Your task to perform on an android device: Open calendar and show me the second week of next month Image 0: 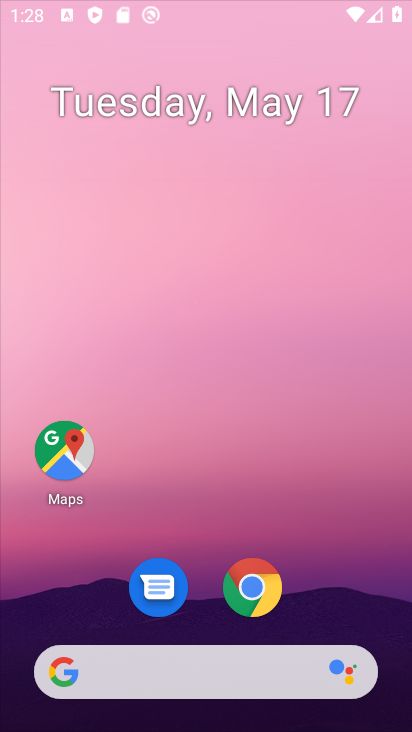
Step 0: click (311, 16)
Your task to perform on an android device: Open calendar and show me the second week of next month Image 1: 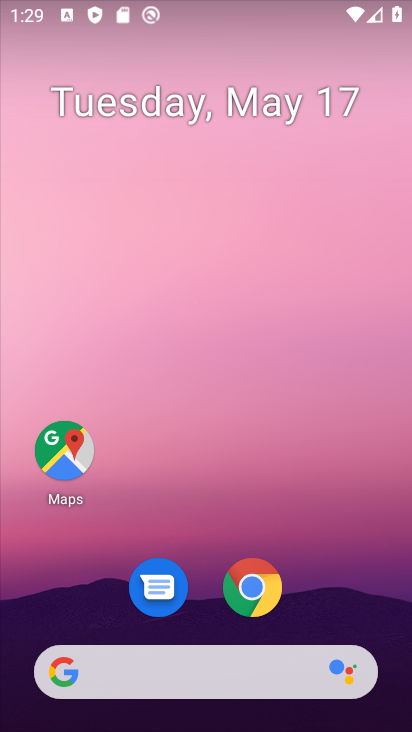
Step 1: drag from (211, 599) to (285, 45)
Your task to perform on an android device: Open calendar and show me the second week of next month Image 2: 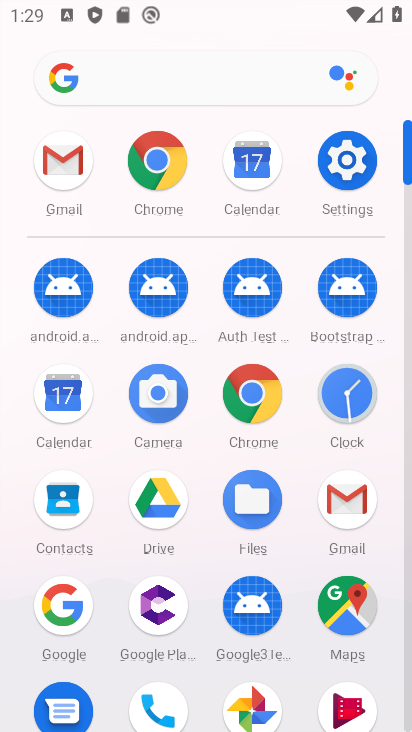
Step 2: click (69, 405)
Your task to perform on an android device: Open calendar and show me the second week of next month Image 3: 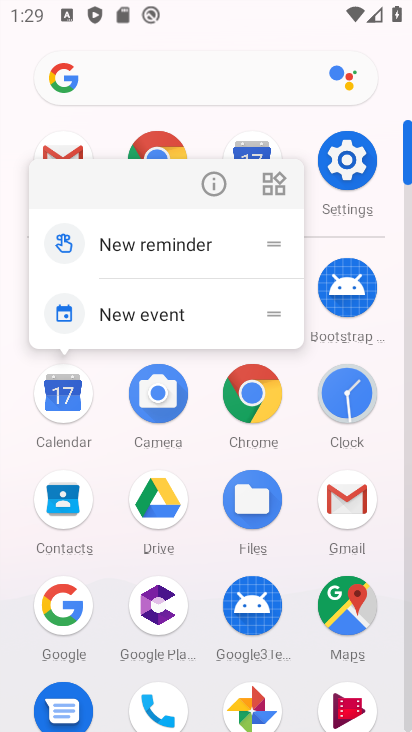
Step 3: click (209, 189)
Your task to perform on an android device: Open calendar and show me the second week of next month Image 4: 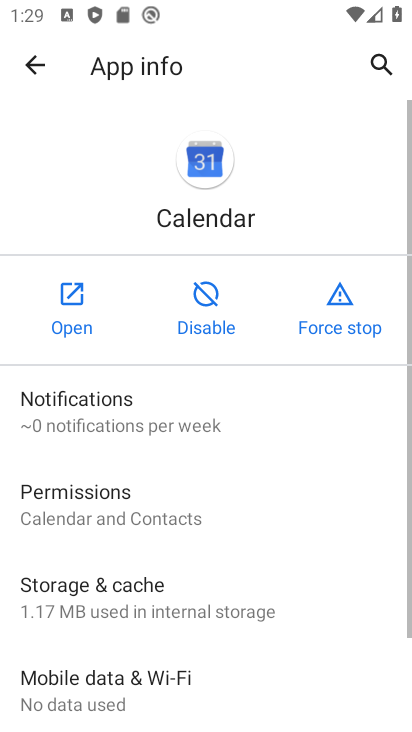
Step 4: click (67, 295)
Your task to perform on an android device: Open calendar and show me the second week of next month Image 5: 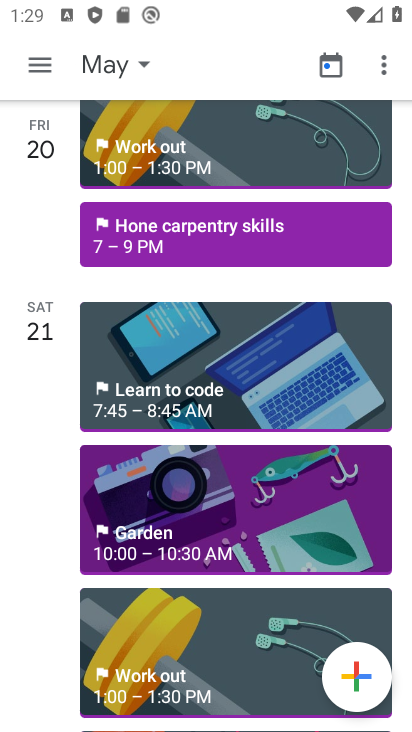
Step 5: drag from (270, 170) to (390, 730)
Your task to perform on an android device: Open calendar and show me the second week of next month Image 6: 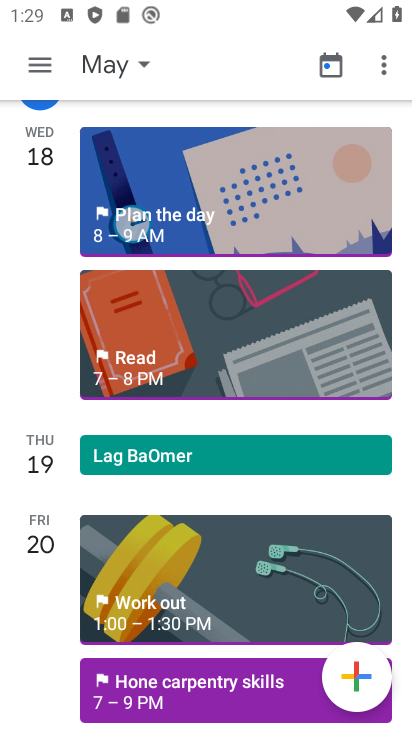
Step 6: click (114, 69)
Your task to perform on an android device: Open calendar and show me the second week of next month Image 7: 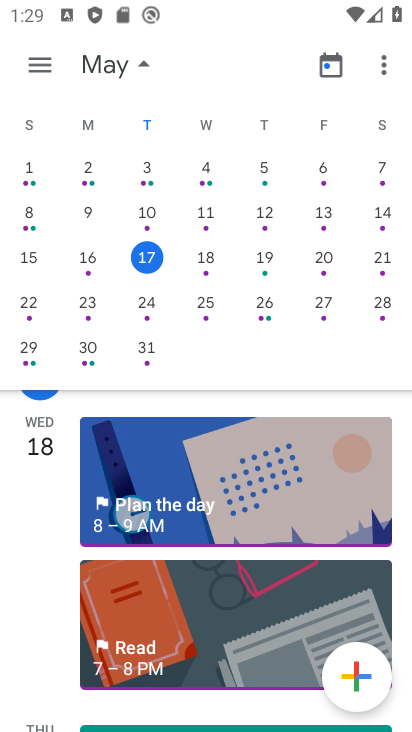
Step 7: drag from (343, 284) to (73, 223)
Your task to perform on an android device: Open calendar and show me the second week of next month Image 8: 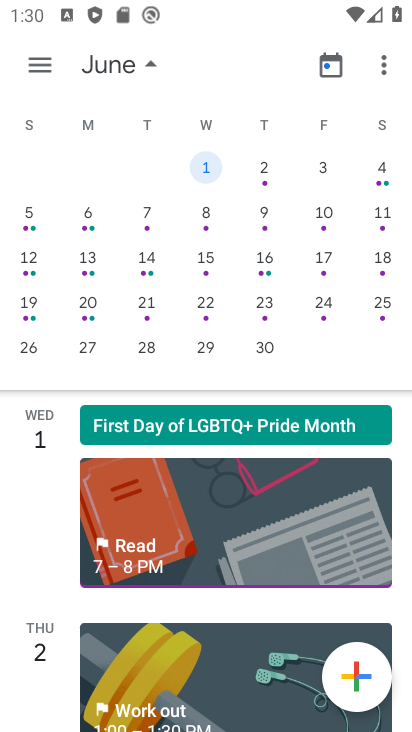
Step 8: drag from (221, 658) to (251, 179)
Your task to perform on an android device: Open calendar and show me the second week of next month Image 9: 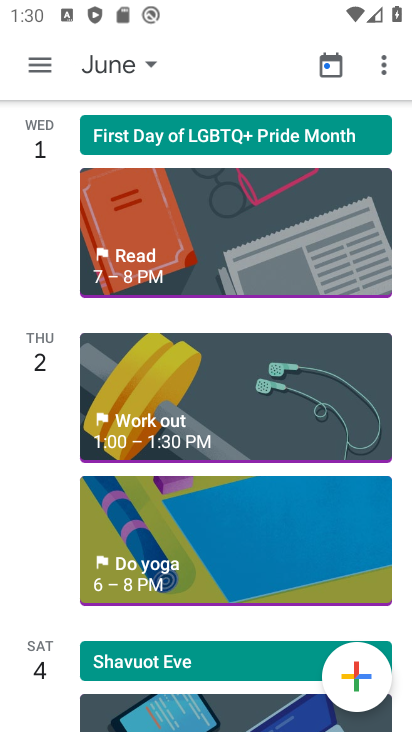
Step 9: drag from (242, 153) to (403, 725)
Your task to perform on an android device: Open calendar and show me the second week of next month Image 10: 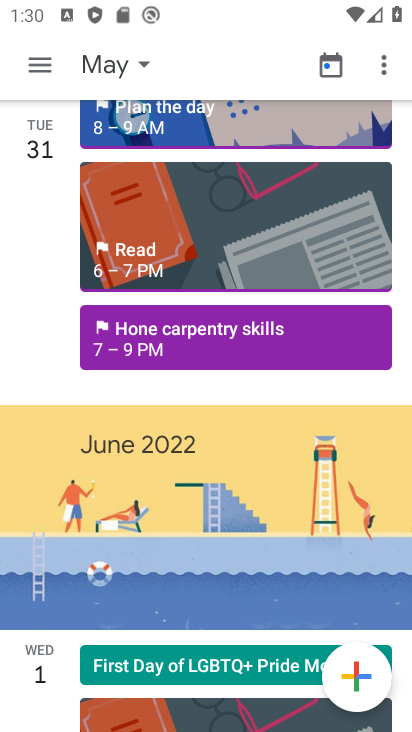
Step 10: click (114, 68)
Your task to perform on an android device: Open calendar and show me the second week of next month Image 11: 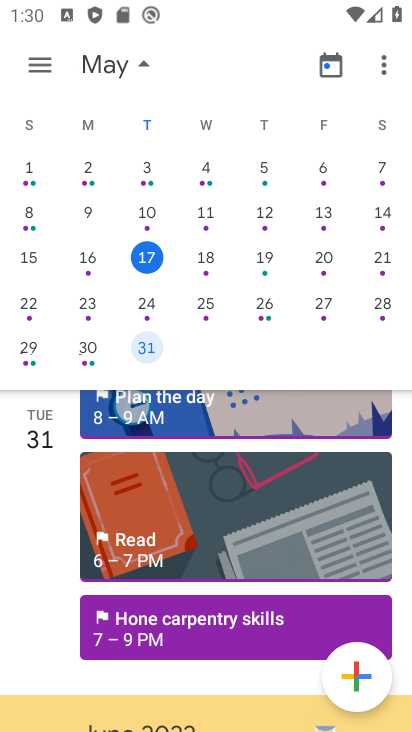
Step 11: drag from (378, 277) to (2, 219)
Your task to perform on an android device: Open calendar and show me the second week of next month Image 12: 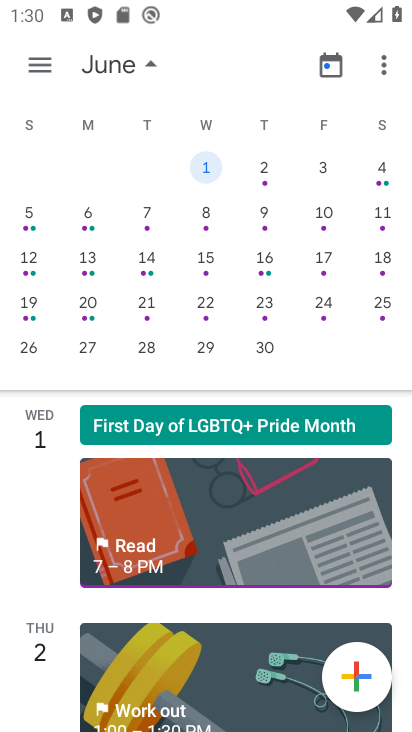
Step 12: click (264, 215)
Your task to perform on an android device: Open calendar and show me the second week of next month Image 13: 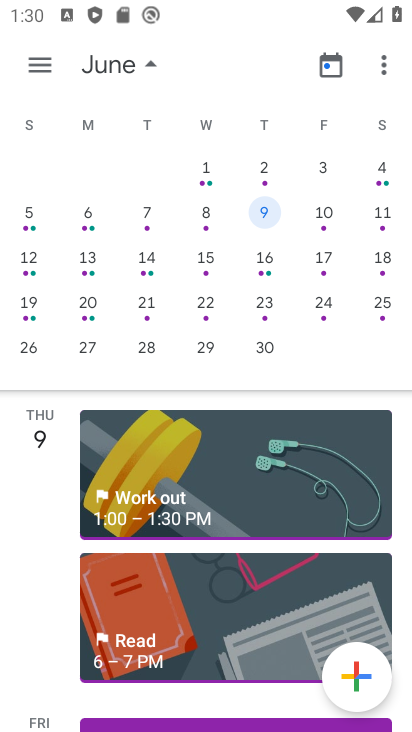
Step 13: task complete